Your task to perform on an android device: Show the shopping cart on newegg. Search for "rayovac triple a" on newegg, select the first entry, and add it to the cart. Image 0: 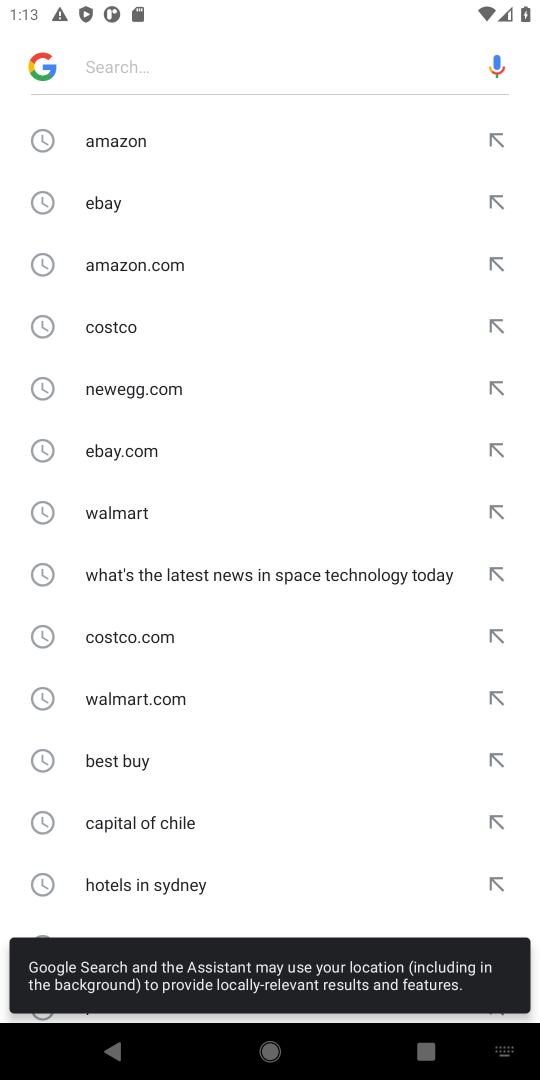
Step 0: press home button
Your task to perform on an android device: Show the shopping cart on newegg. Search for "rayovac triple a" on newegg, select the first entry, and add it to the cart. Image 1: 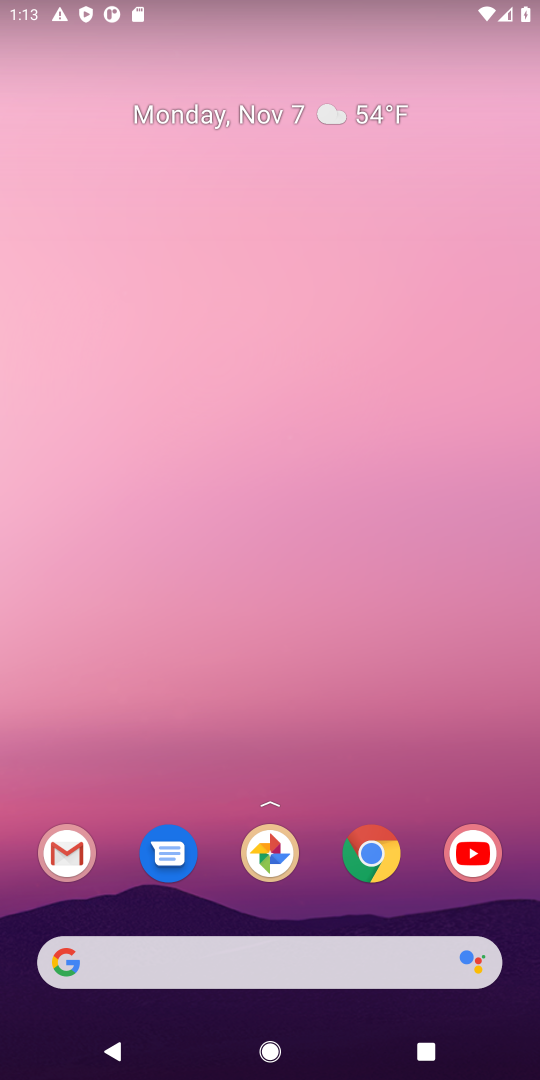
Step 1: drag from (72, 832) to (152, 322)
Your task to perform on an android device: Show the shopping cart on newegg. Search for "rayovac triple a" on newegg, select the first entry, and add it to the cart. Image 2: 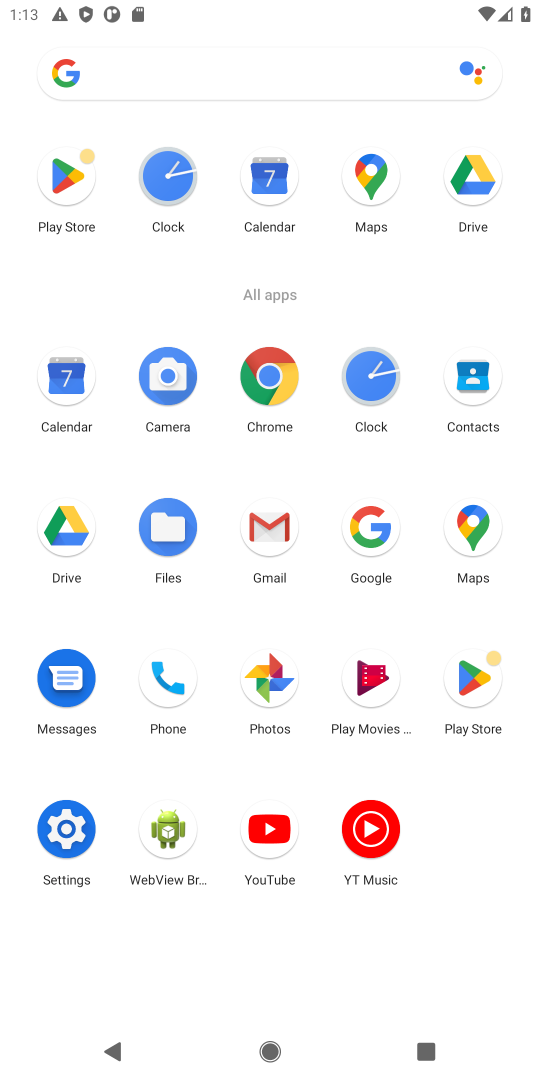
Step 2: click (270, 382)
Your task to perform on an android device: Show the shopping cart on newegg. Search for "rayovac triple a" on newegg, select the first entry, and add it to the cart. Image 3: 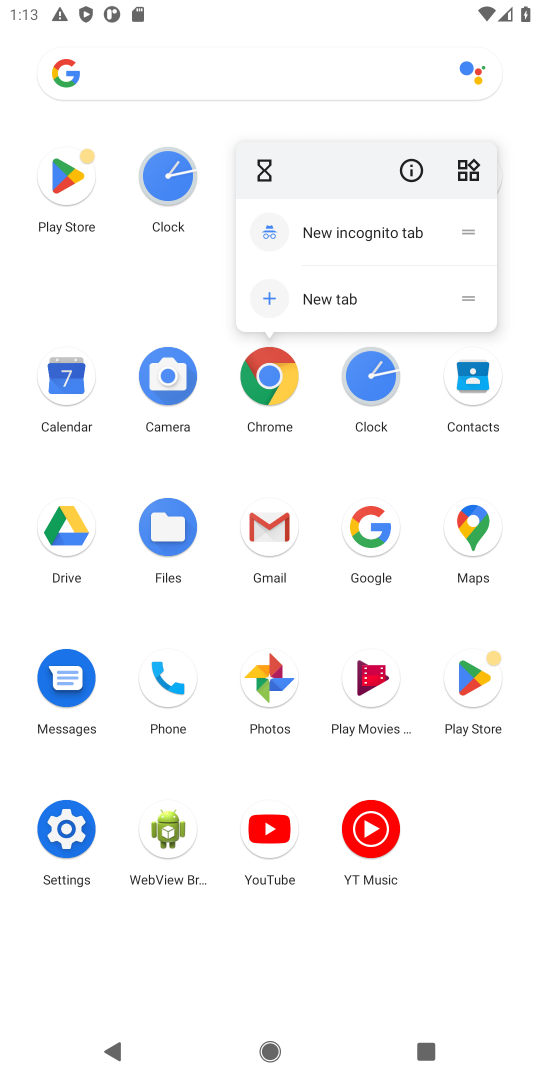
Step 3: click (281, 388)
Your task to perform on an android device: Show the shopping cart on newegg. Search for "rayovac triple a" on newegg, select the first entry, and add it to the cart. Image 4: 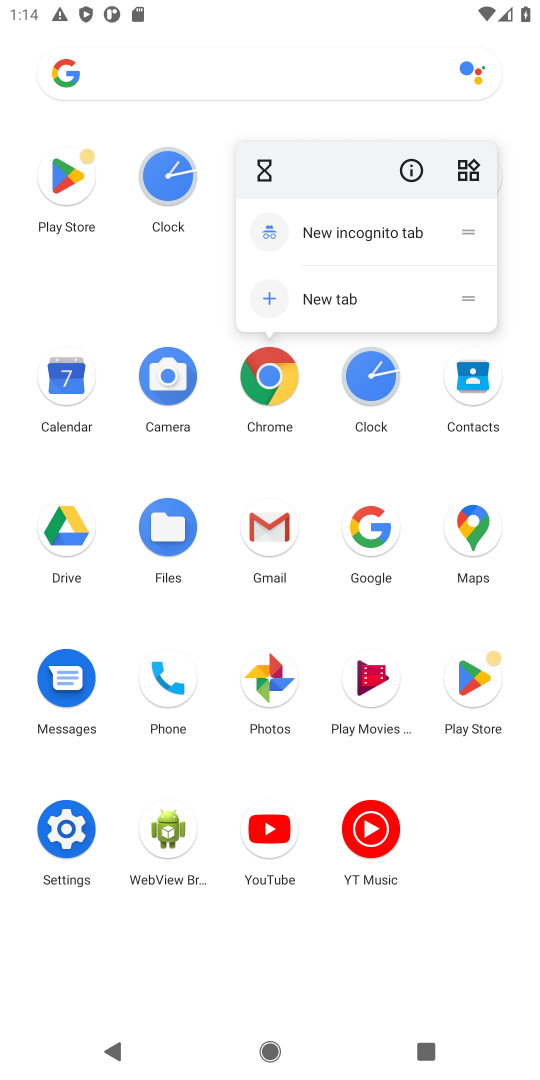
Step 4: click (281, 388)
Your task to perform on an android device: Show the shopping cart on newegg. Search for "rayovac triple a" on newegg, select the first entry, and add it to the cart. Image 5: 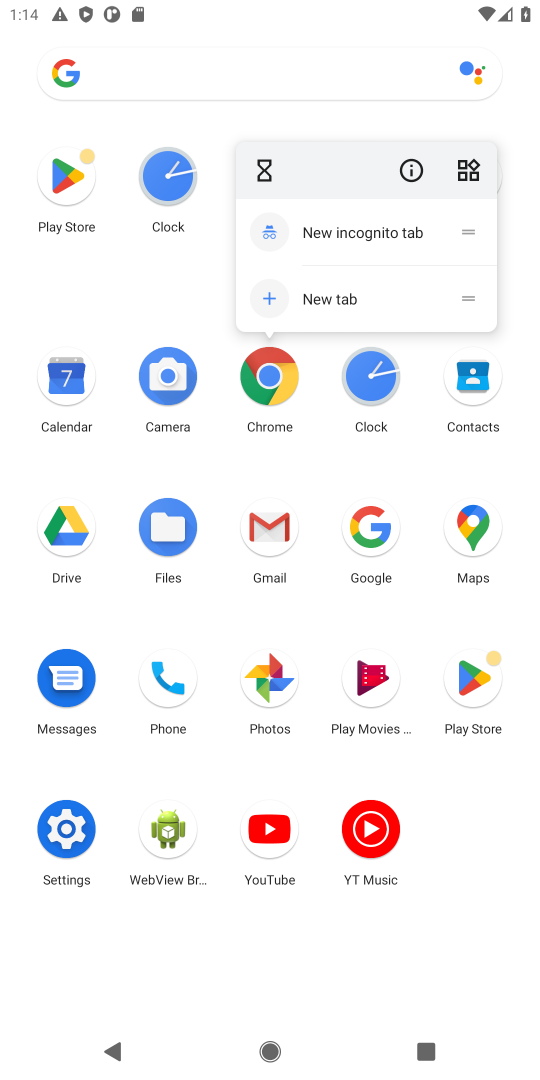
Step 5: click (281, 388)
Your task to perform on an android device: Show the shopping cart on newegg. Search for "rayovac triple a" on newegg, select the first entry, and add it to the cart. Image 6: 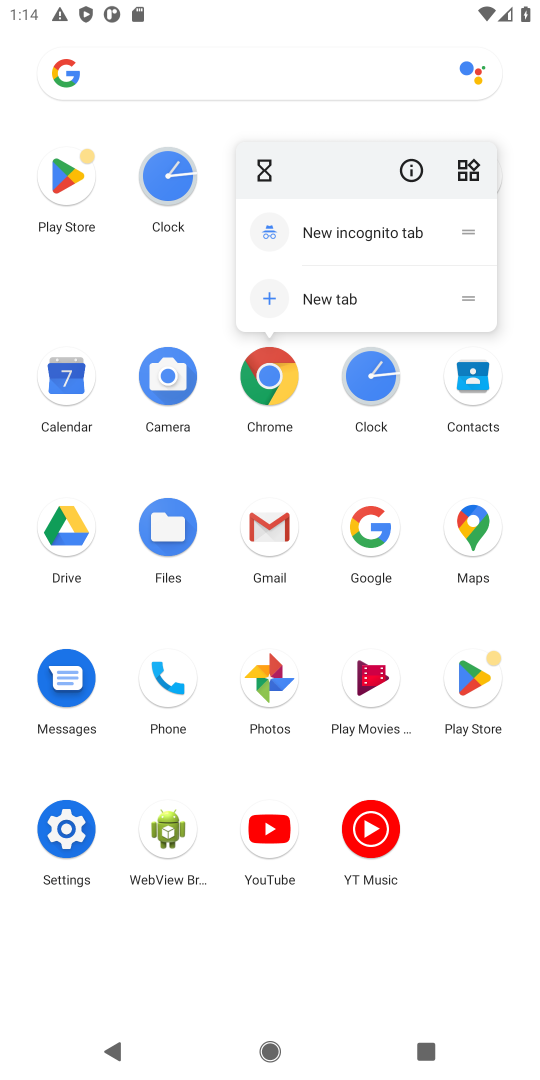
Step 6: click (281, 388)
Your task to perform on an android device: Show the shopping cart on newegg. Search for "rayovac triple a" on newegg, select the first entry, and add it to the cart. Image 7: 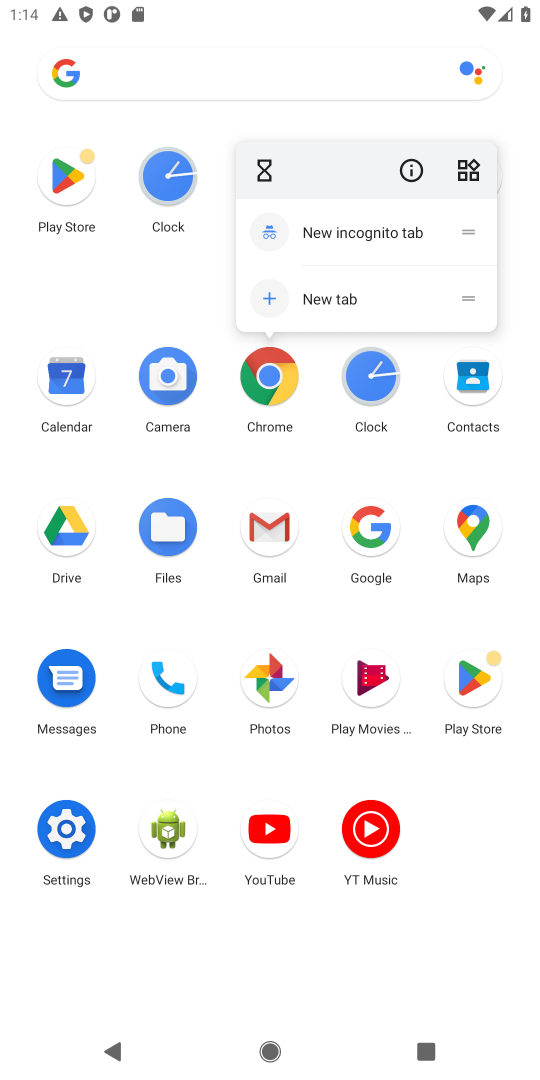
Step 7: click (281, 388)
Your task to perform on an android device: Show the shopping cart on newegg. Search for "rayovac triple a" on newegg, select the first entry, and add it to the cart. Image 8: 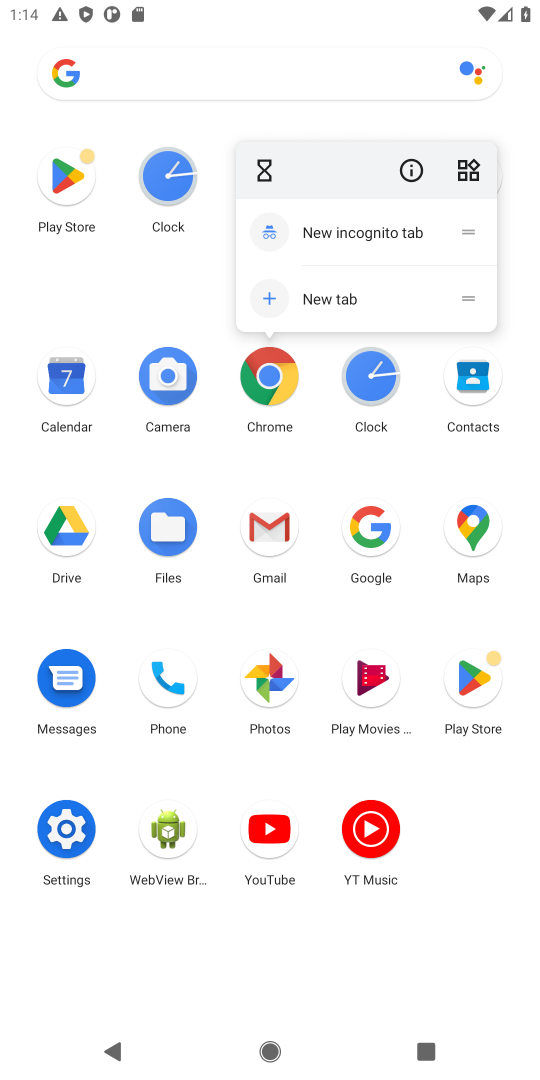
Step 8: click (281, 388)
Your task to perform on an android device: Show the shopping cart on newegg. Search for "rayovac triple a" on newegg, select the first entry, and add it to the cart. Image 9: 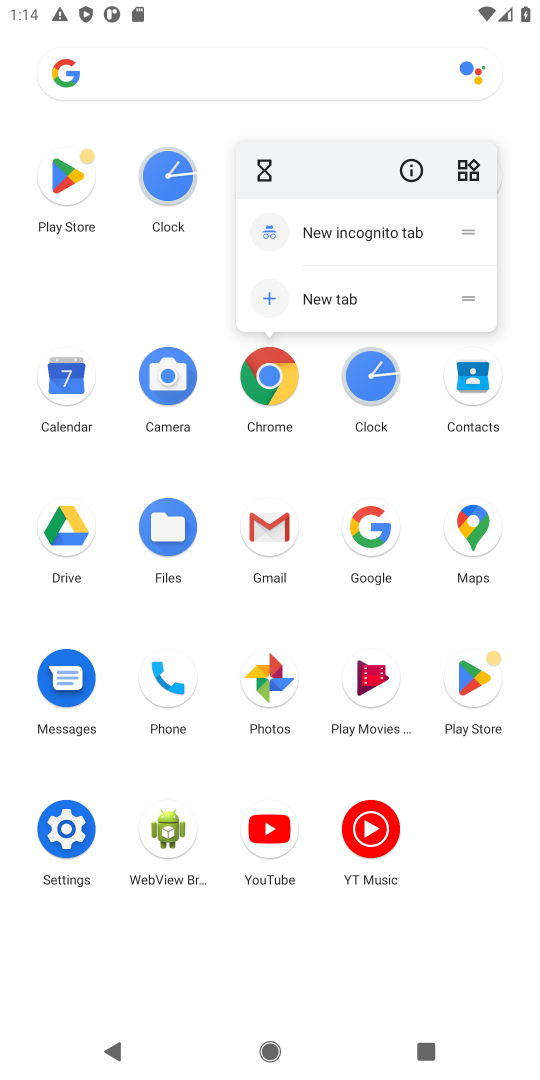
Step 9: click (281, 388)
Your task to perform on an android device: Show the shopping cart on newegg. Search for "rayovac triple a" on newegg, select the first entry, and add it to the cart. Image 10: 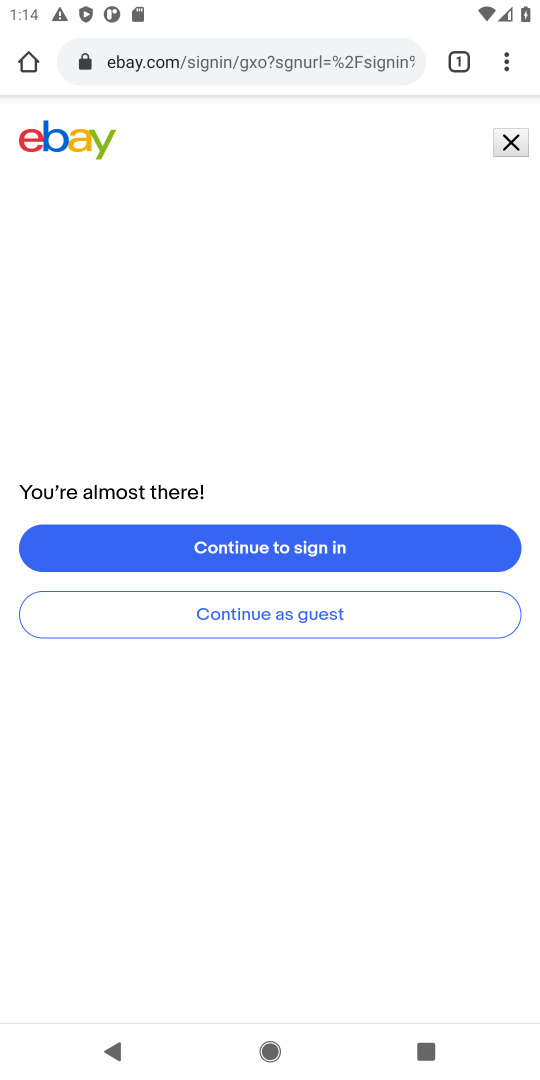
Step 10: click (238, 60)
Your task to perform on an android device: Show the shopping cart on newegg. Search for "rayovac triple a" on newegg, select the first entry, and add it to the cart. Image 11: 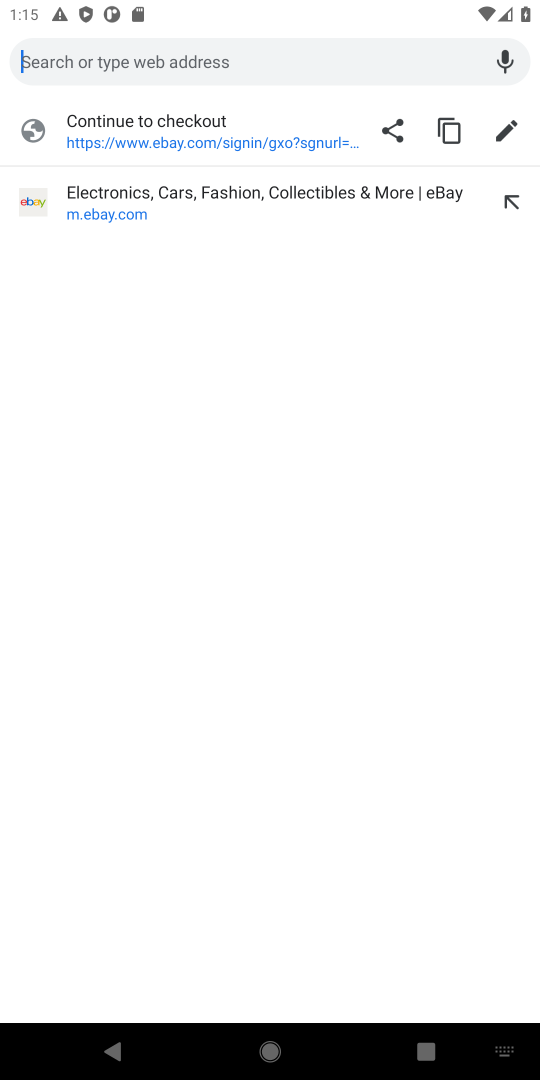
Step 11: type "newegg"
Your task to perform on an android device: Show the shopping cart on newegg. Search for "rayovac triple a" on newegg, select the first entry, and add it to the cart. Image 12: 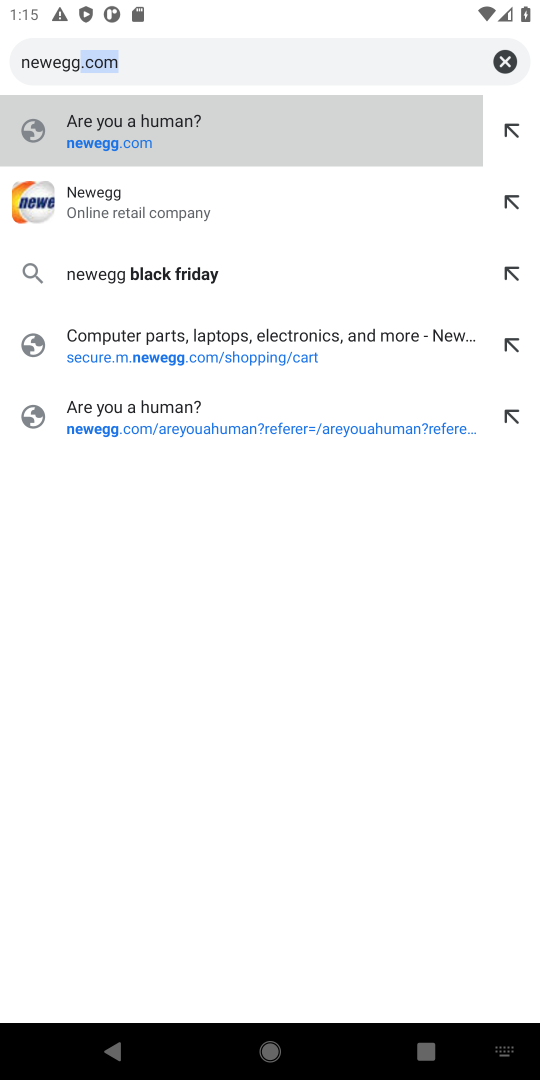
Step 12: press enter
Your task to perform on an android device: Show the shopping cart on newegg. Search for "rayovac triple a" on newegg, select the first entry, and add it to the cart. Image 13: 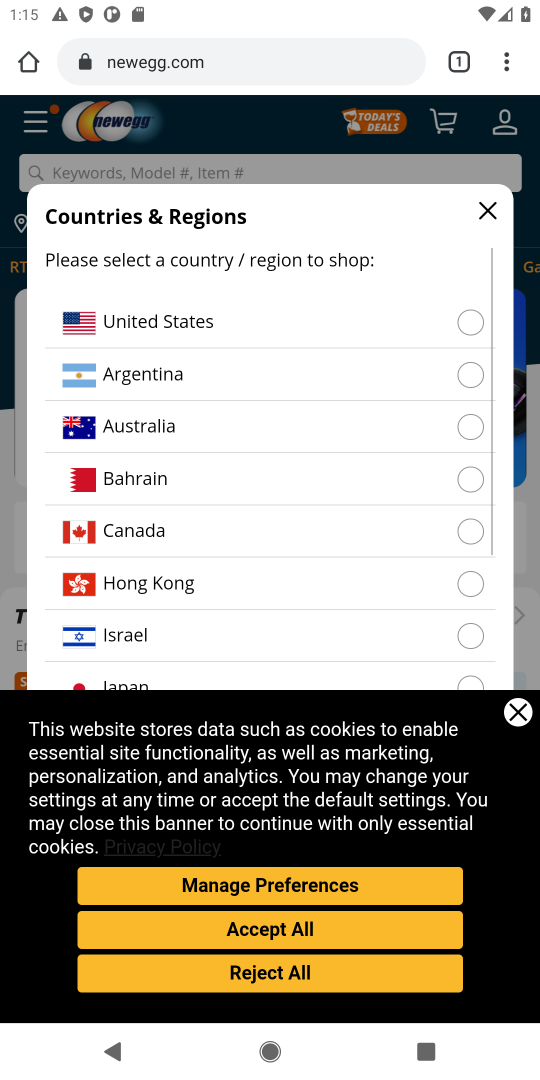
Step 13: click (129, 317)
Your task to perform on an android device: Show the shopping cart on newegg. Search for "rayovac triple a" on newegg, select the first entry, and add it to the cart. Image 14: 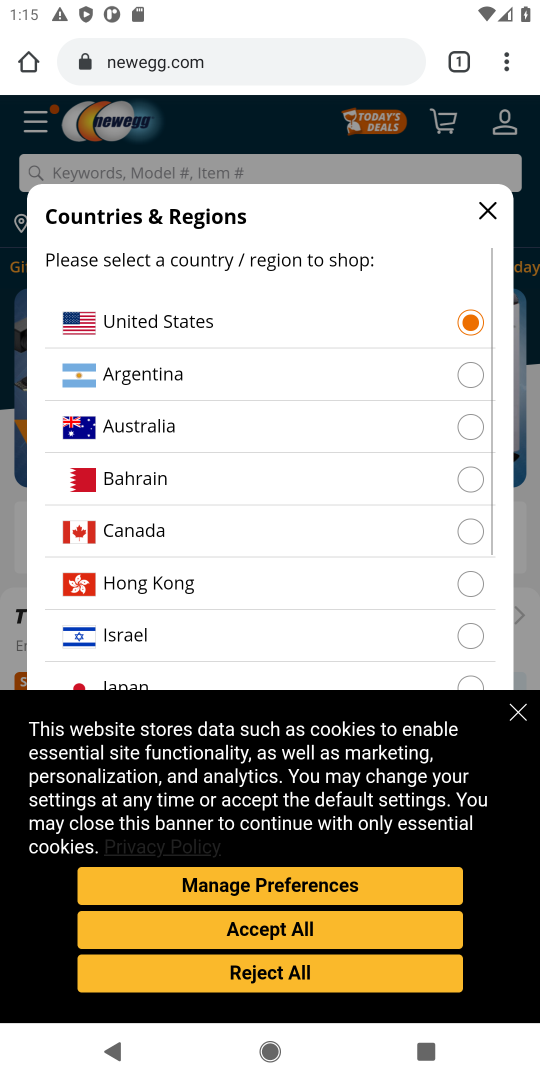
Step 14: click (522, 718)
Your task to perform on an android device: Show the shopping cart on newegg. Search for "rayovac triple a" on newegg, select the first entry, and add it to the cart. Image 15: 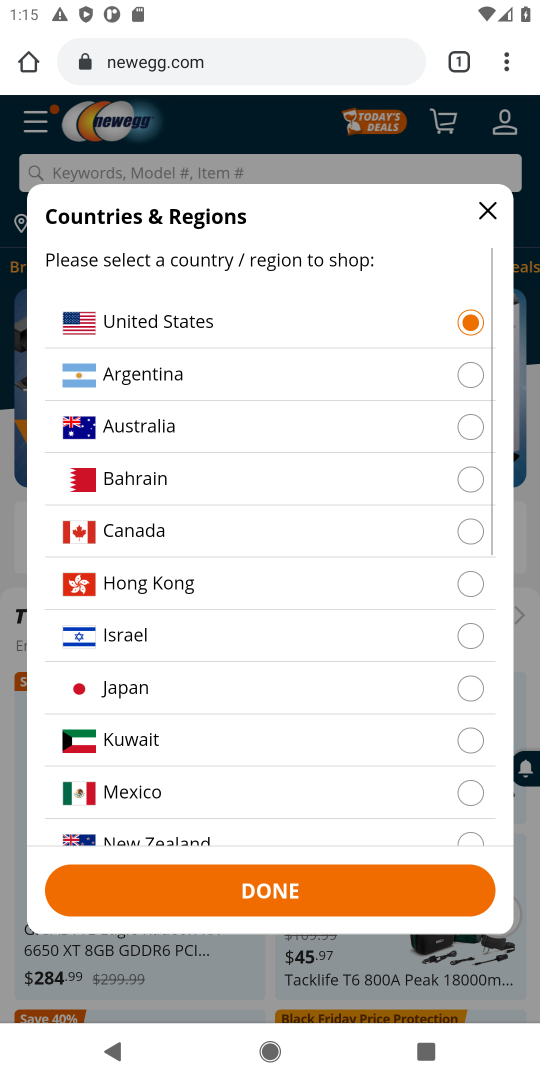
Step 15: click (273, 897)
Your task to perform on an android device: Show the shopping cart on newegg. Search for "rayovac triple a" on newegg, select the first entry, and add it to the cart. Image 16: 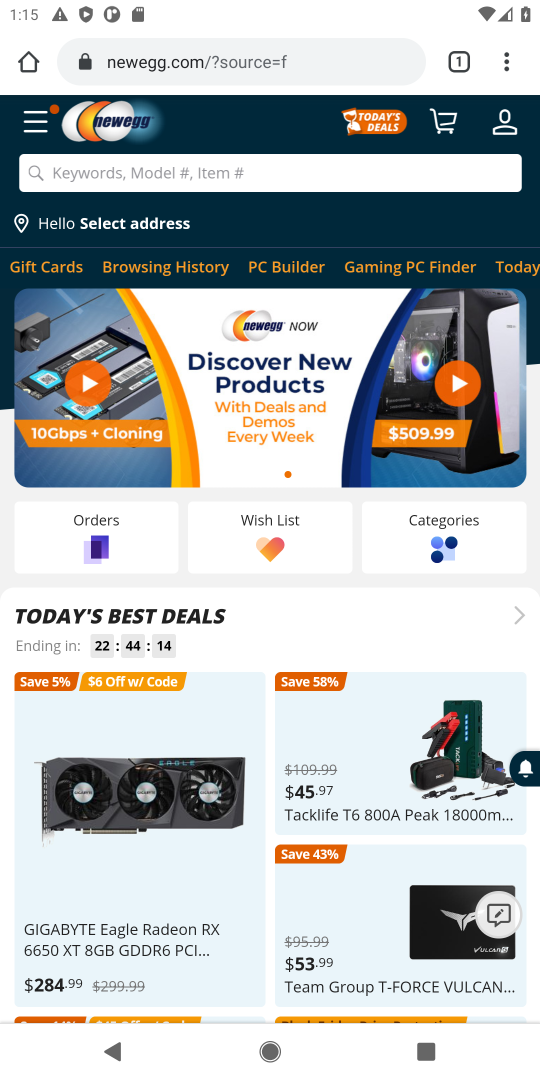
Step 16: click (161, 165)
Your task to perform on an android device: Show the shopping cart on newegg. Search for "rayovac triple a" on newegg, select the first entry, and add it to the cart. Image 17: 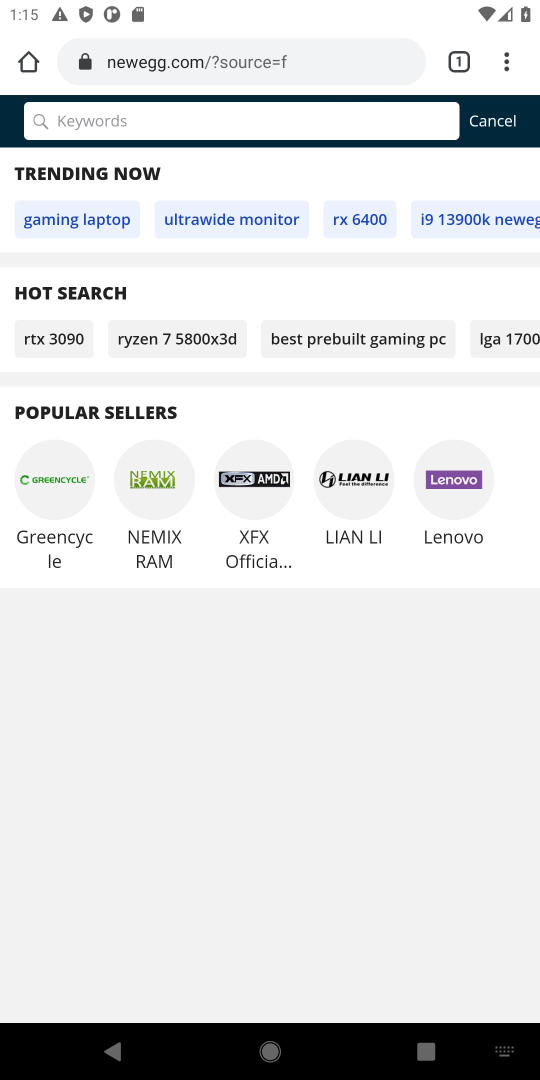
Step 17: type "rayovac triple a"
Your task to perform on an android device: Show the shopping cart on newegg. Search for "rayovac triple a" on newegg, select the first entry, and add it to the cart. Image 18: 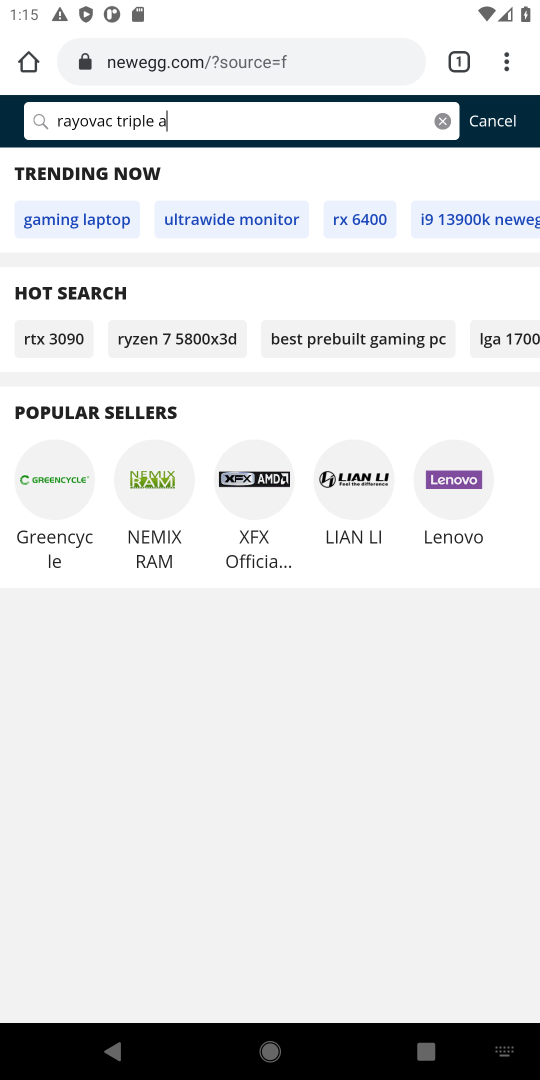
Step 18: press enter
Your task to perform on an android device: Show the shopping cart on newegg. Search for "rayovac triple a" on newegg, select the first entry, and add it to the cart. Image 19: 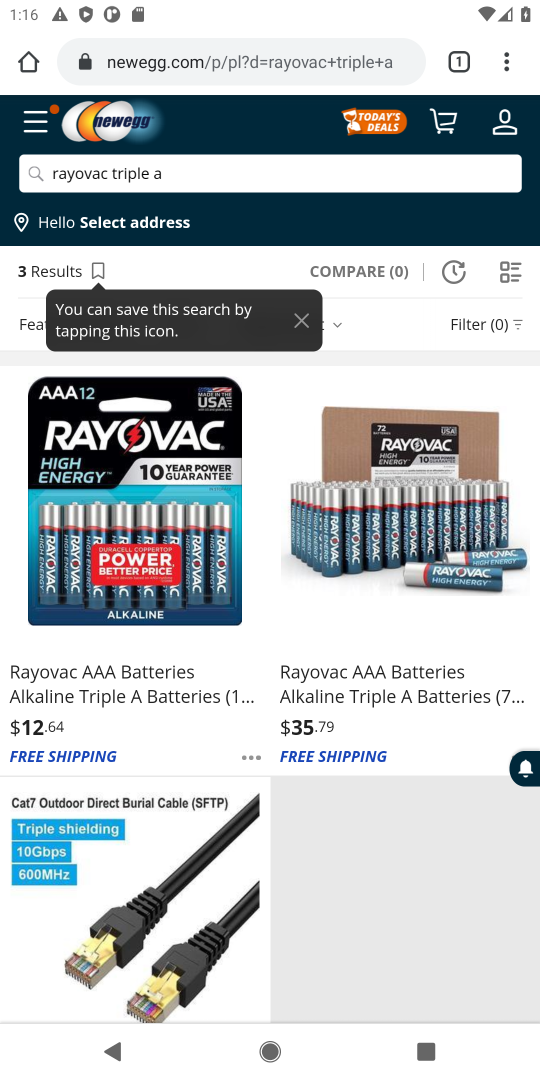
Step 19: click (133, 448)
Your task to perform on an android device: Show the shopping cart on newegg. Search for "rayovac triple a" on newegg, select the first entry, and add it to the cart. Image 20: 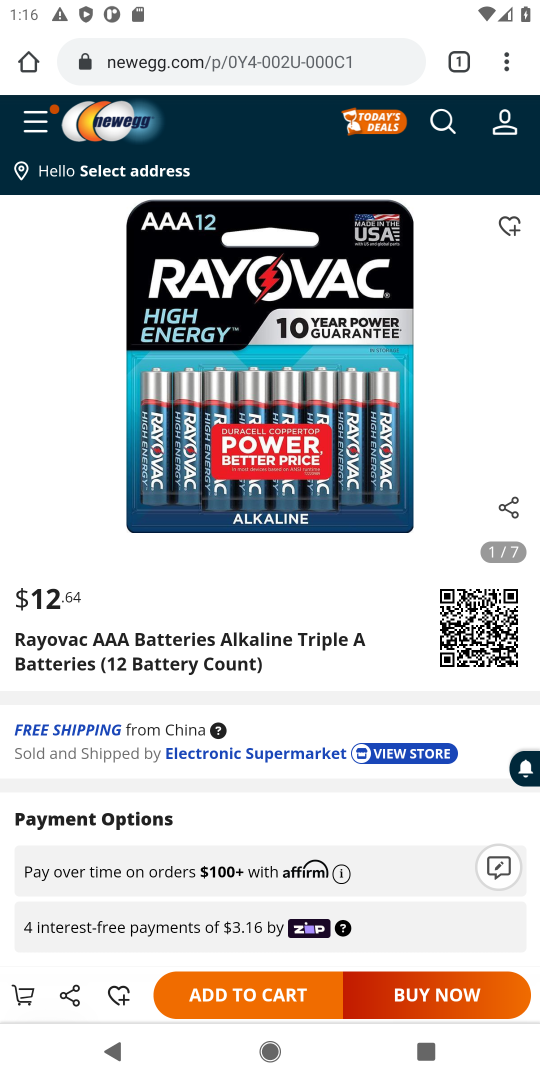
Step 20: click (295, 995)
Your task to perform on an android device: Show the shopping cart on newegg. Search for "rayovac triple a" on newegg, select the first entry, and add it to the cart. Image 21: 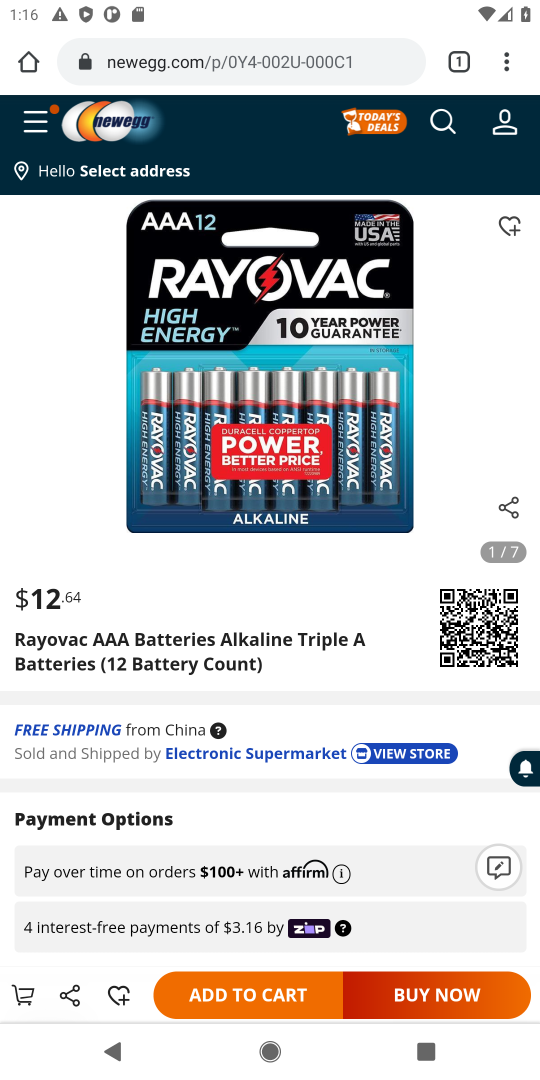
Step 21: click (217, 986)
Your task to perform on an android device: Show the shopping cart on newegg. Search for "rayovac triple a" on newegg, select the first entry, and add it to the cart. Image 22: 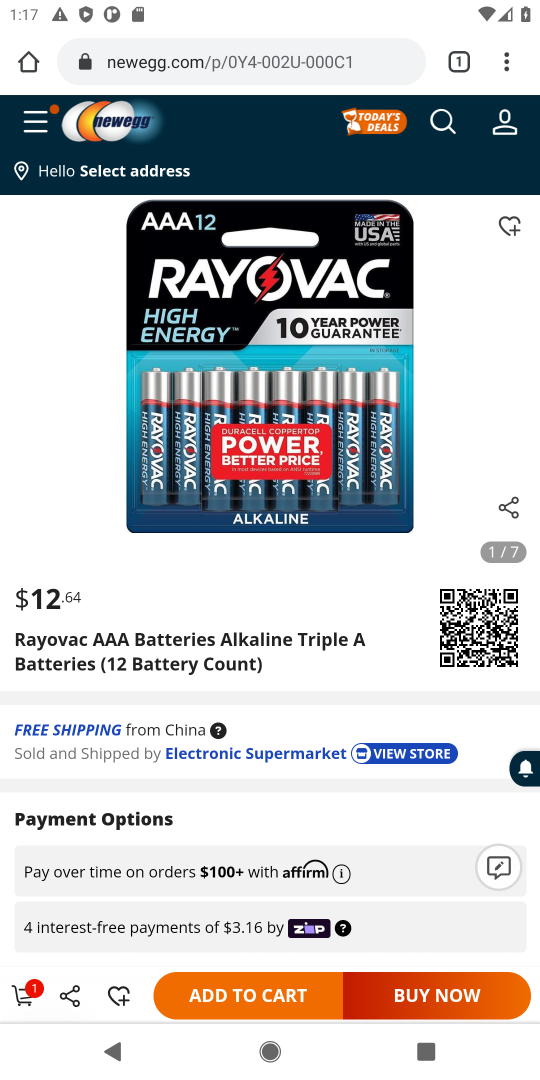
Step 22: task complete